Your task to perform on an android device: find photos in the google photos app Image 0: 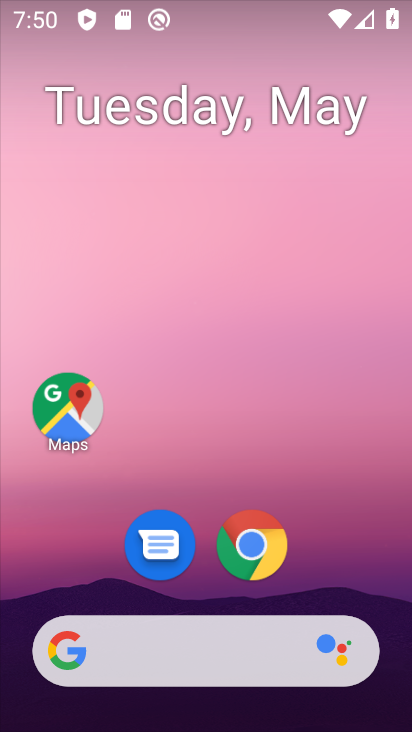
Step 0: drag from (195, 592) to (223, 128)
Your task to perform on an android device: find photos in the google photos app Image 1: 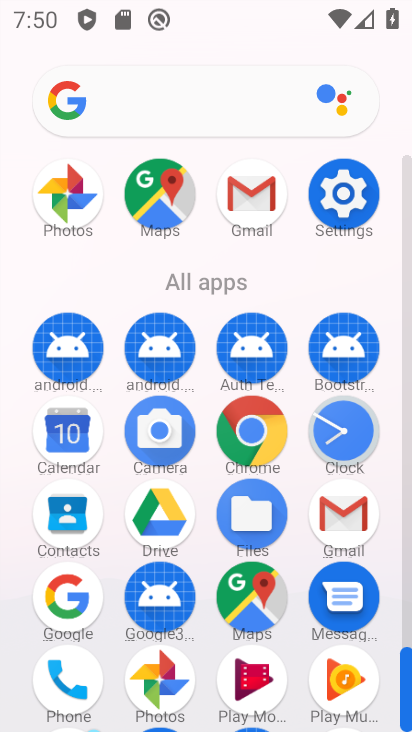
Step 1: click (46, 194)
Your task to perform on an android device: find photos in the google photos app Image 2: 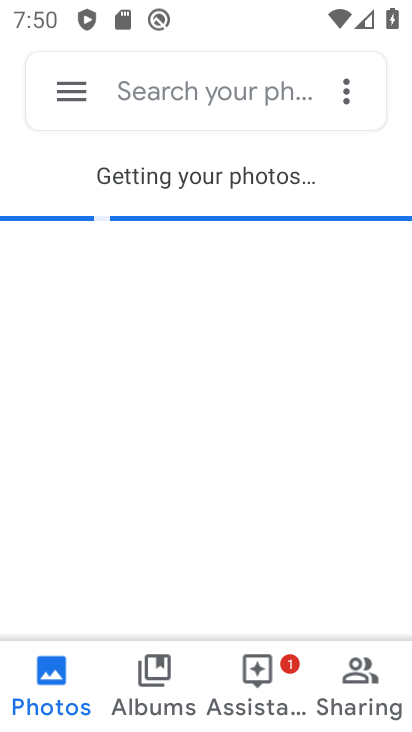
Step 2: click (194, 80)
Your task to perform on an android device: find photos in the google photos app Image 3: 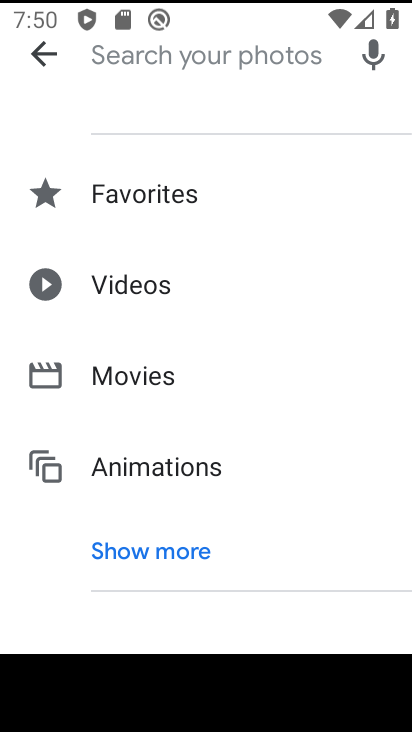
Step 3: type "aa"
Your task to perform on an android device: find photos in the google photos app Image 4: 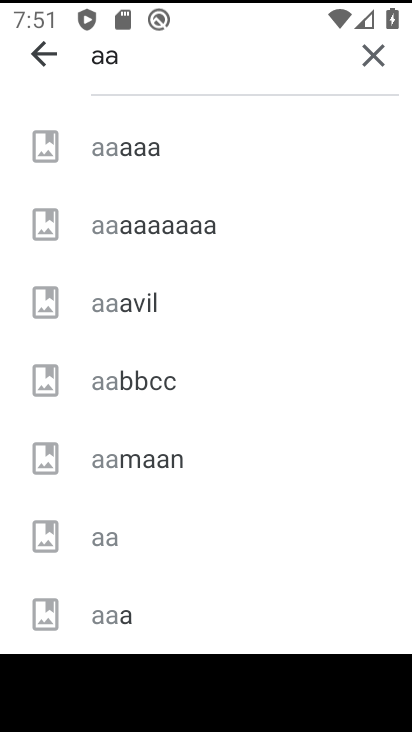
Step 4: click (141, 152)
Your task to perform on an android device: find photos in the google photos app Image 5: 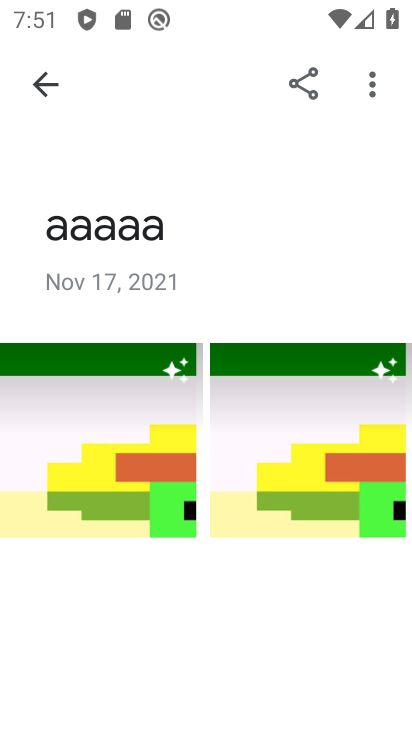
Step 5: task complete